Your task to perform on an android device: Open the clock Image 0: 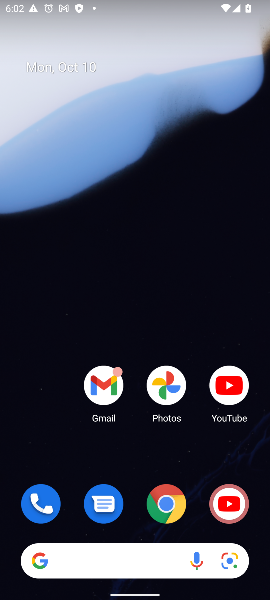
Step 0: drag from (148, 548) to (250, 0)
Your task to perform on an android device: Open the clock Image 1: 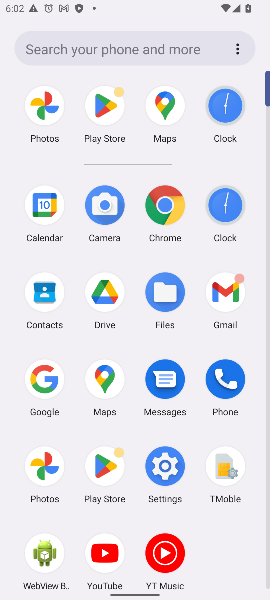
Step 1: click (225, 212)
Your task to perform on an android device: Open the clock Image 2: 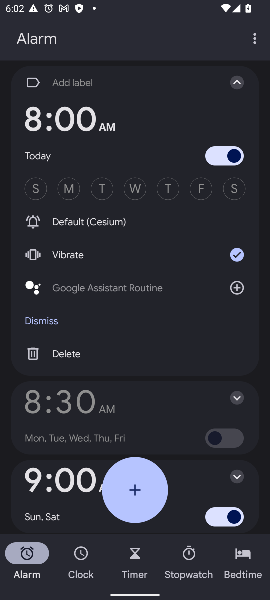
Step 2: task complete